Your task to perform on an android device: Open the stopwatch Image 0: 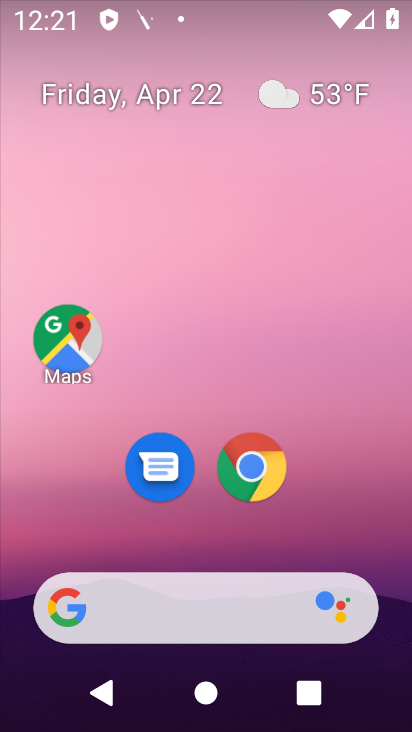
Step 0: drag from (398, 611) to (349, 128)
Your task to perform on an android device: Open the stopwatch Image 1: 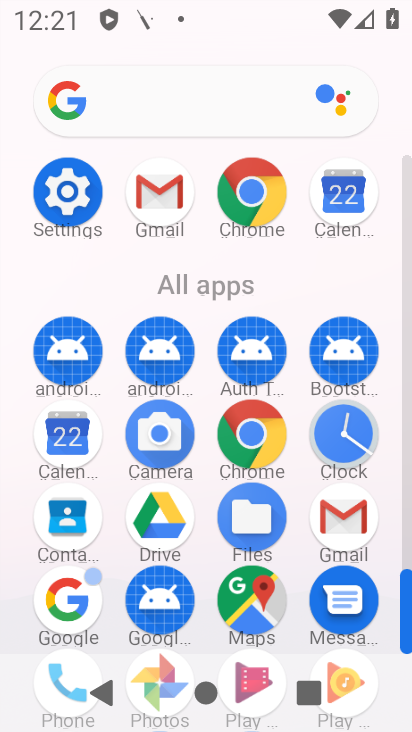
Step 1: click (404, 662)
Your task to perform on an android device: Open the stopwatch Image 2: 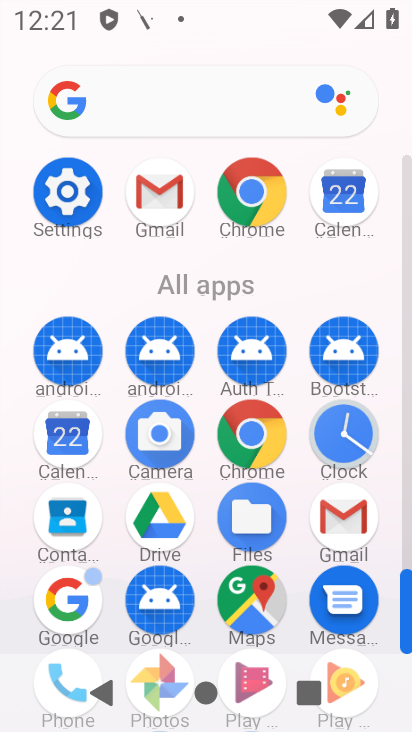
Step 2: click (402, 541)
Your task to perform on an android device: Open the stopwatch Image 3: 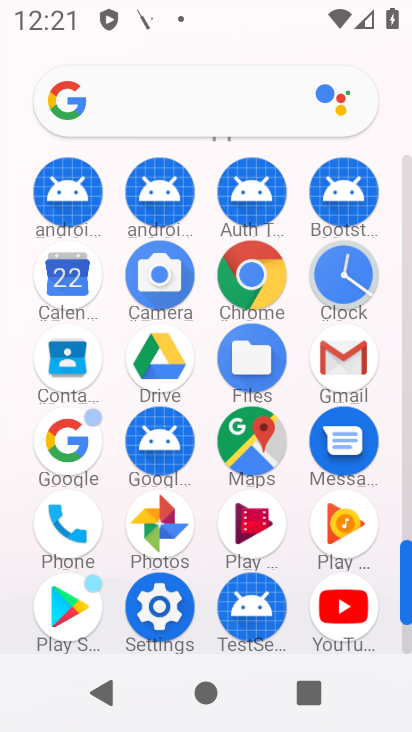
Step 3: click (343, 279)
Your task to perform on an android device: Open the stopwatch Image 4: 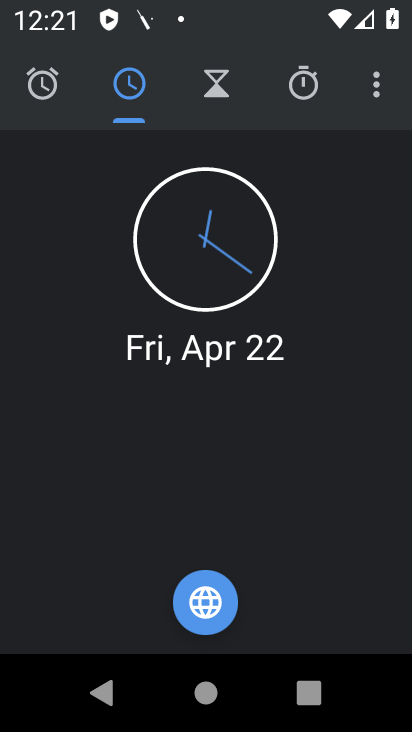
Step 4: click (306, 75)
Your task to perform on an android device: Open the stopwatch Image 5: 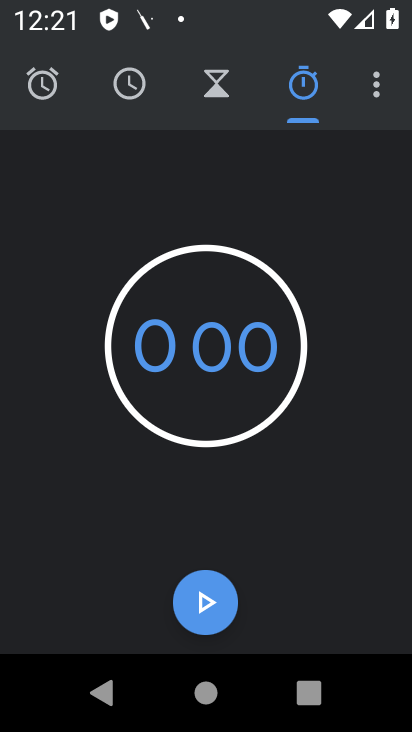
Step 5: task complete